Your task to perform on an android device: set the timer Image 0: 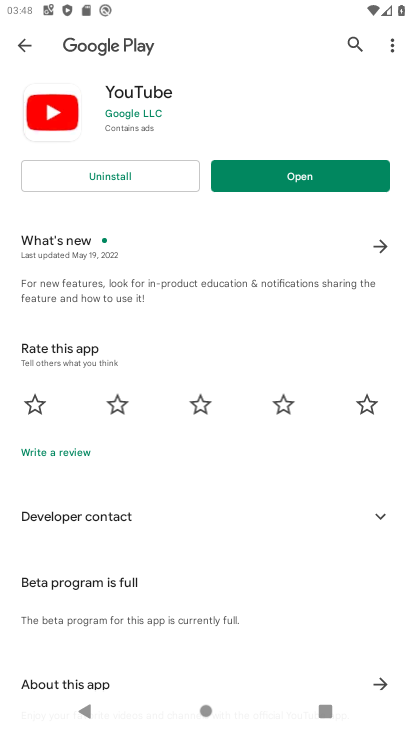
Step 0: press home button
Your task to perform on an android device: set the timer Image 1: 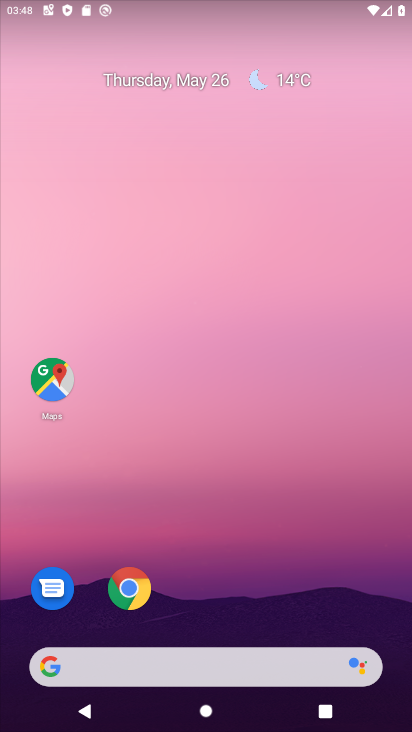
Step 1: drag from (253, 587) to (249, 98)
Your task to perform on an android device: set the timer Image 2: 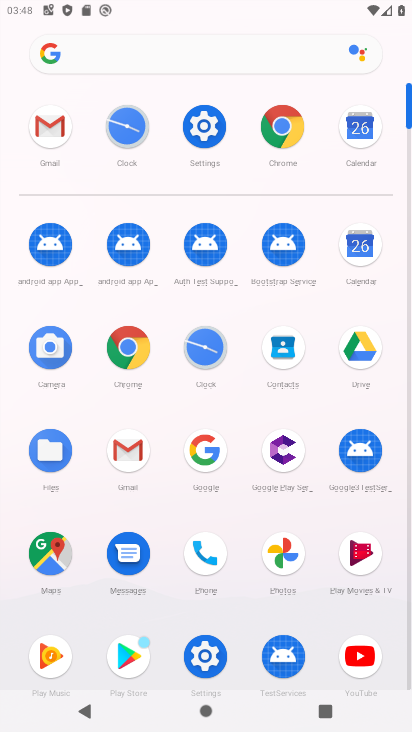
Step 2: click (206, 145)
Your task to perform on an android device: set the timer Image 3: 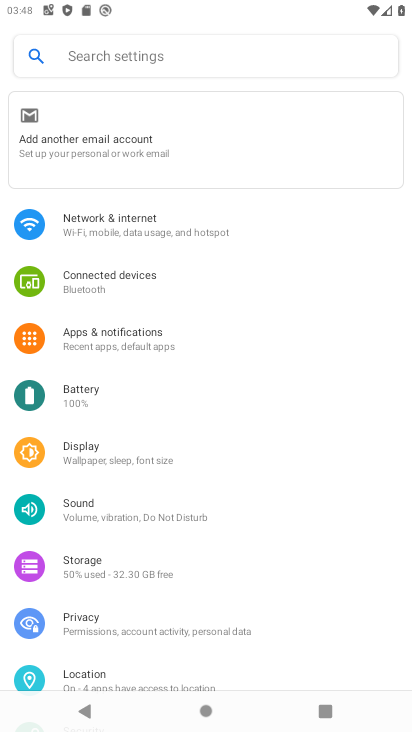
Step 3: drag from (117, 655) to (168, 449)
Your task to perform on an android device: set the timer Image 4: 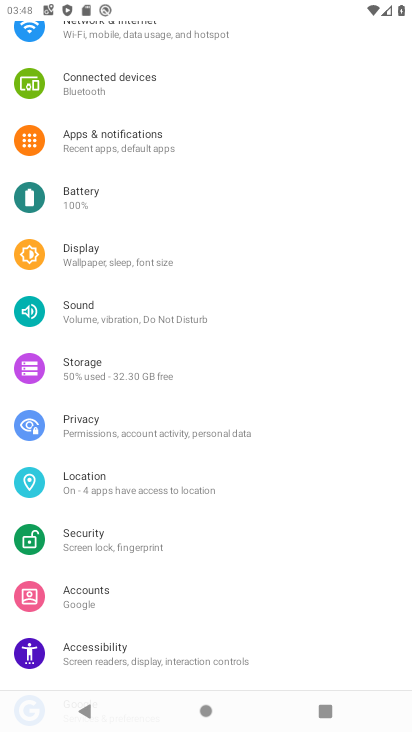
Step 4: press home button
Your task to perform on an android device: set the timer Image 5: 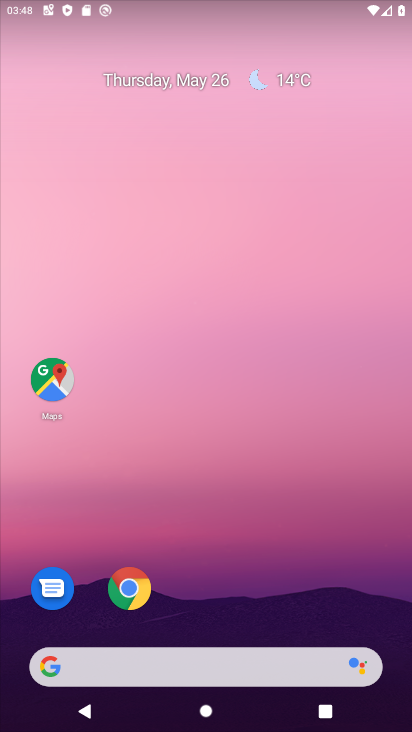
Step 5: drag from (259, 568) to (317, 5)
Your task to perform on an android device: set the timer Image 6: 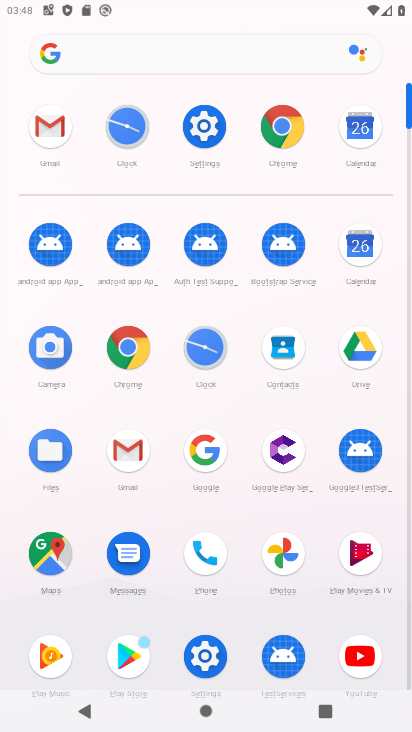
Step 6: click (136, 161)
Your task to perform on an android device: set the timer Image 7: 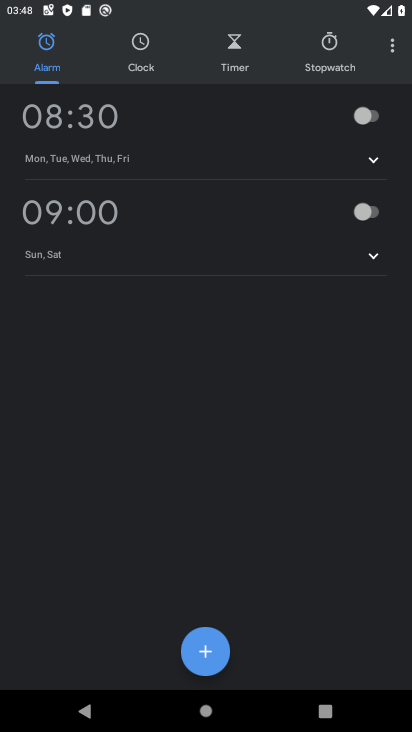
Step 7: click (241, 46)
Your task to perform on an android device: set the timer Image 8: 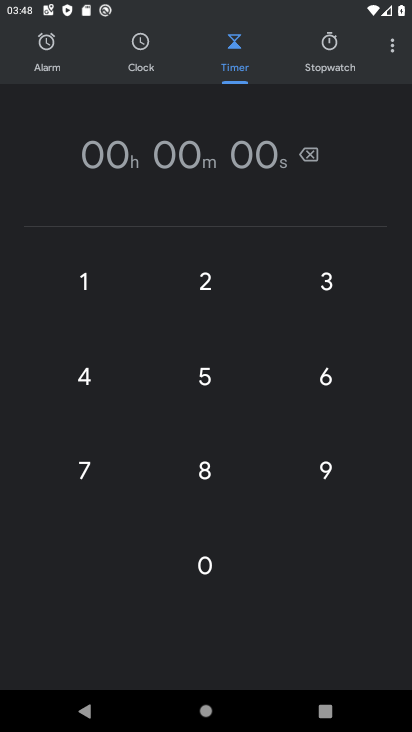
Step 8: task complete